Your task to perform on an android device: Search for pizza restaurants on Maps Image 0: 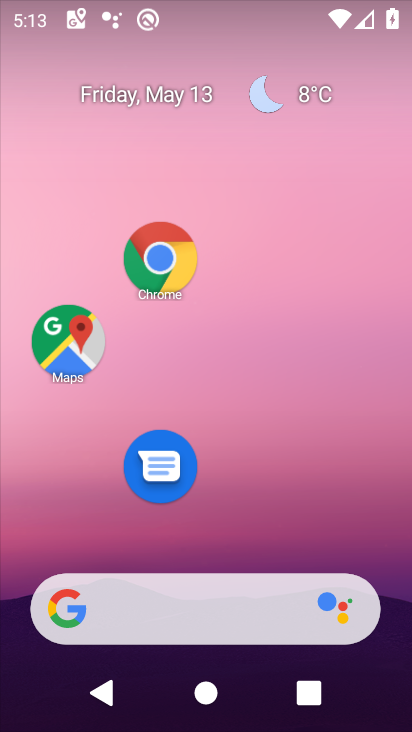
Step 0: drag from (329, 578) to (91, 75)
Your task to perform on an android device: Search for pizza restaurants on Maps Image 1: 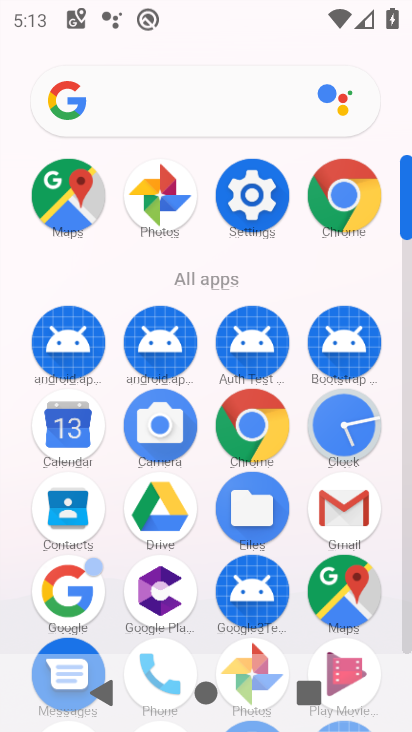
Step 1: click (72, 200)
Your task to perform on an android device: Search for pizza restaurants on Maps Image 2: 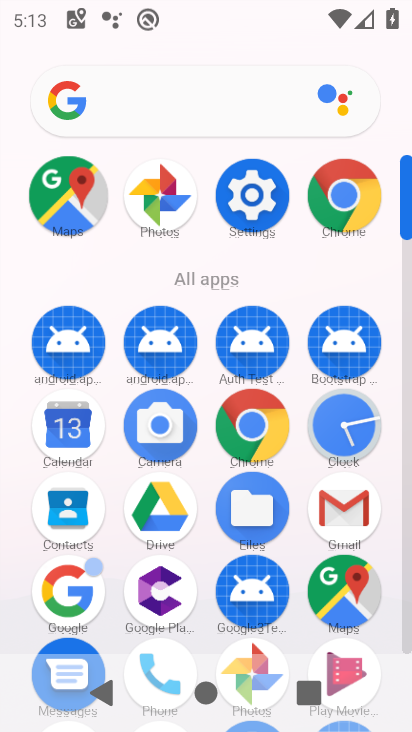
Step 2: click (72, 200)
Your task to perform on an android device: Search for pizza restaurants on Maps Image 3: 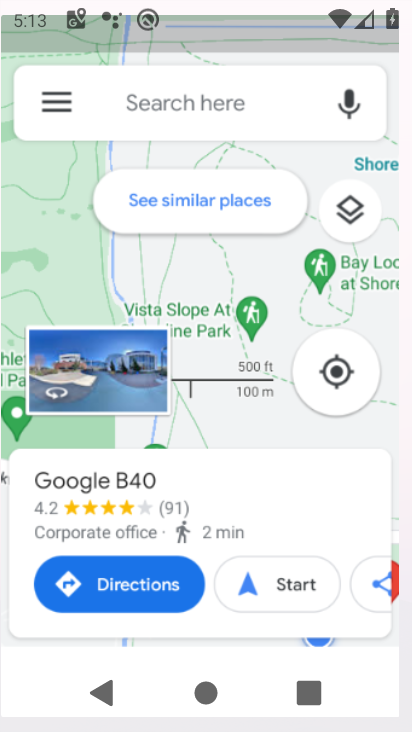
Step 3: click (72, 200)
Your task to perform on an android device: Search for pizza restaurants on Maps Image 4: 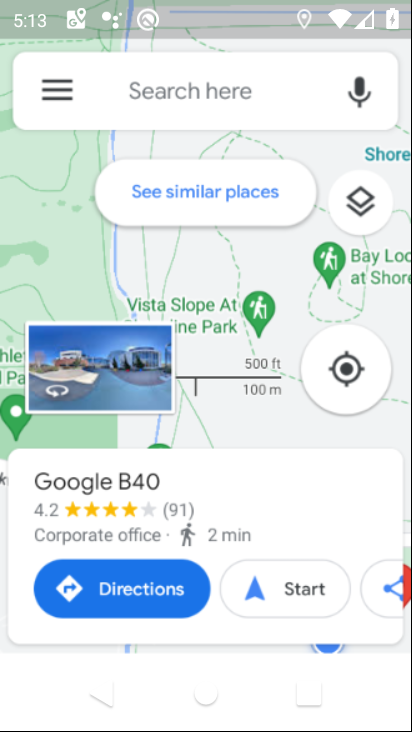
Step 4: click (72, 200)
Your task to perform on an android device: Search for pizza restaurants on Maps Image 5: 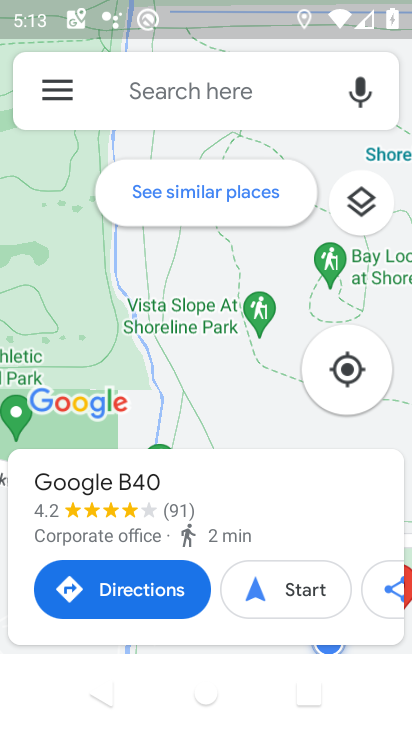
Step 5: click (72, 200)
Your task to perform on an android device: Search for pizza restaurants on Maps Image 6: 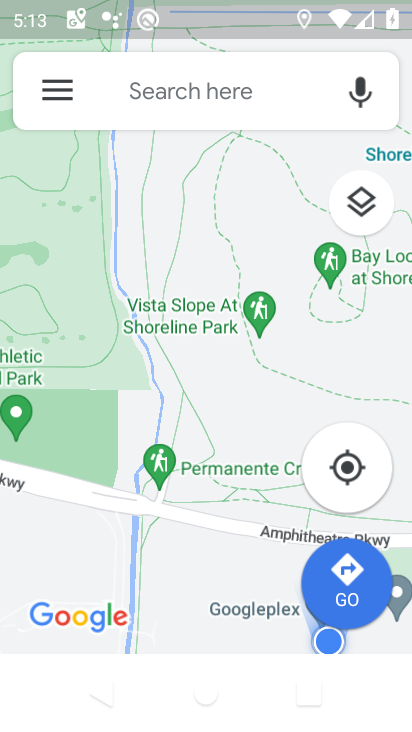
Step 6: click (126, 92)
Your task to perform on an android device: Search for pizza restaurants on Maps Image 7: 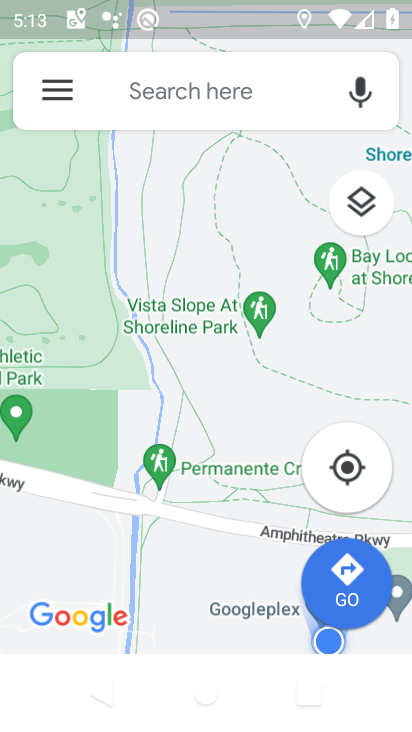
Step 7: click (126, 92)
Your task to perform on an android device: Search for pizza restaurants on Maps Image 8: 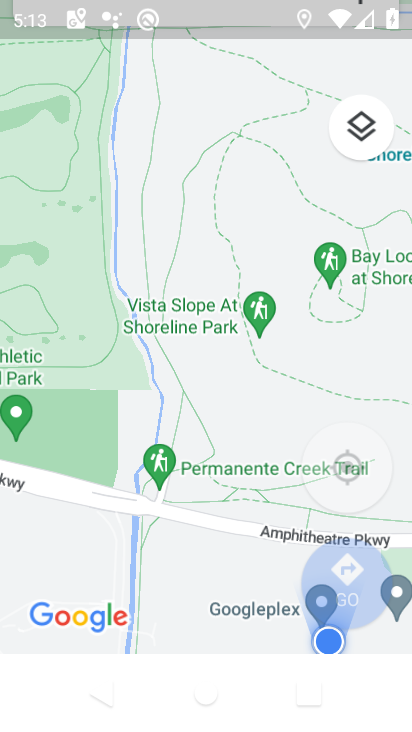
Step 8: click (126, 92)
Your task to perform on an android device: Search for pizza restaurants on Maps Image 9: 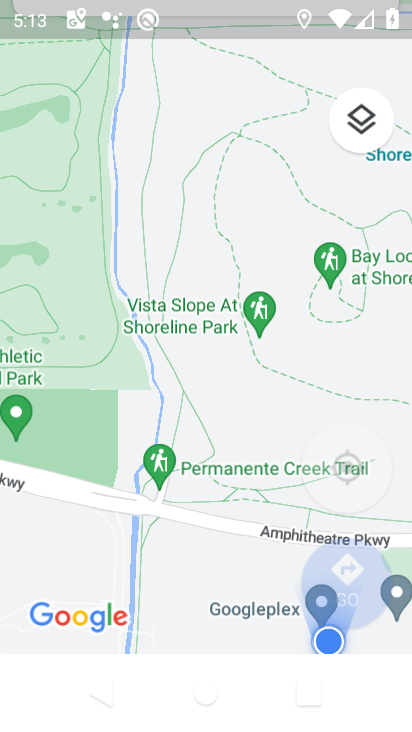
Step 9: click (126, 92)
Your task to perform on an android device: Search for pizza restaurants on Maps Image 10: 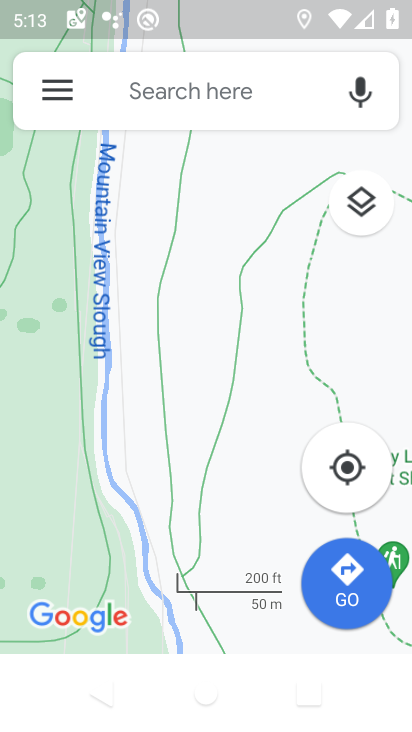
Step 10: click (128, 91)
Your task to perform on an android device: Search for pizza restaurants on Maps Image 11: 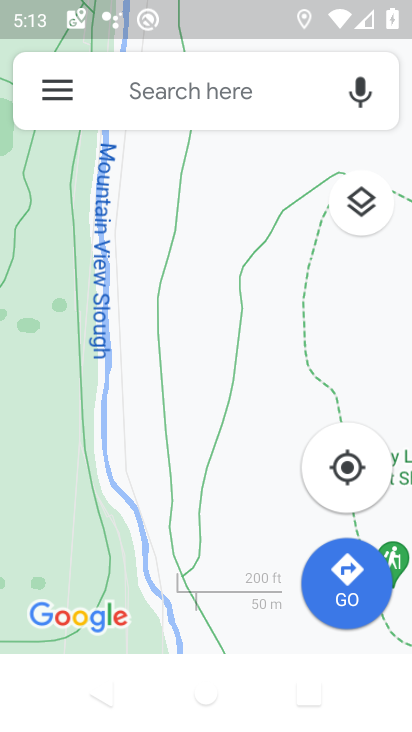
Step 11: click (128, 91)
Your task to perform on an android device: Search for pizza restaurants on Maps Image 12: 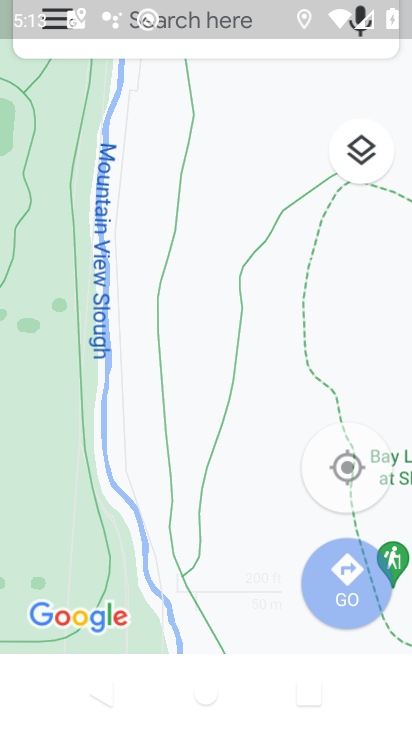
Step 12: click (128, 91)
Your task to perform on an android device: Search for pizza restaurants on Maps Image 13: 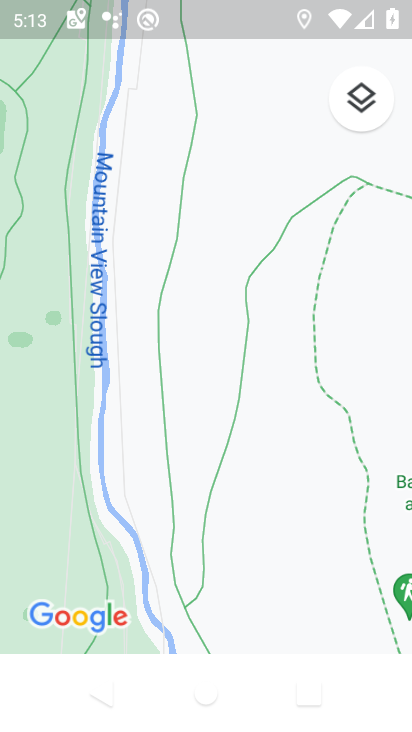
Step 13: click (128, 91)
Your task to perform on an android device: Search for pizza restaurants on Maps Image 14: 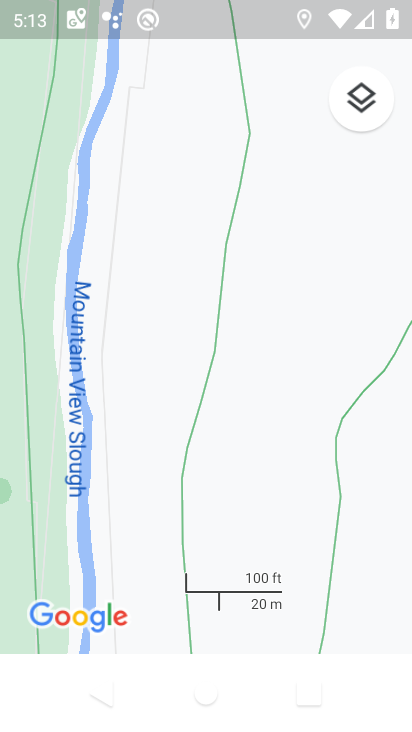
Step 14: click (128, 91)
Your task to perform on an android device: Search for pizza restaurants on Maps Image 15: 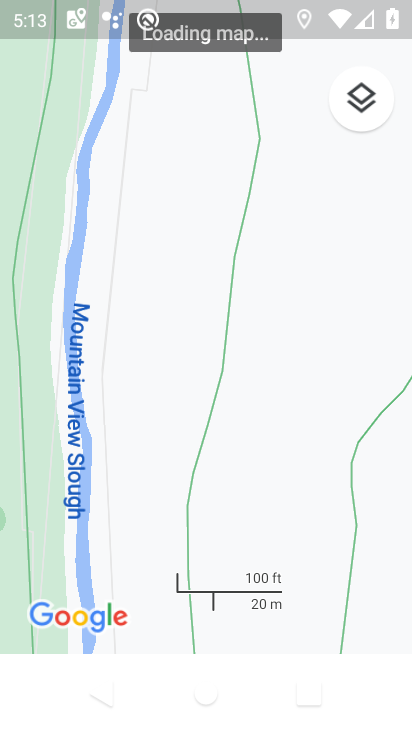
Step 15: click (128, 91)
Your task to perform on an android device: Search for pizza restaurants on Maps Image 16: 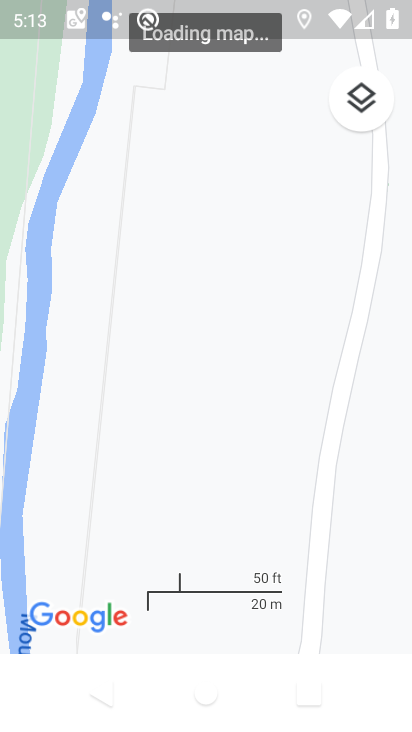
Step 16: click (128, 91)
Your task to perform on an android device: Search for pizza restaurants on Maps Image 17: 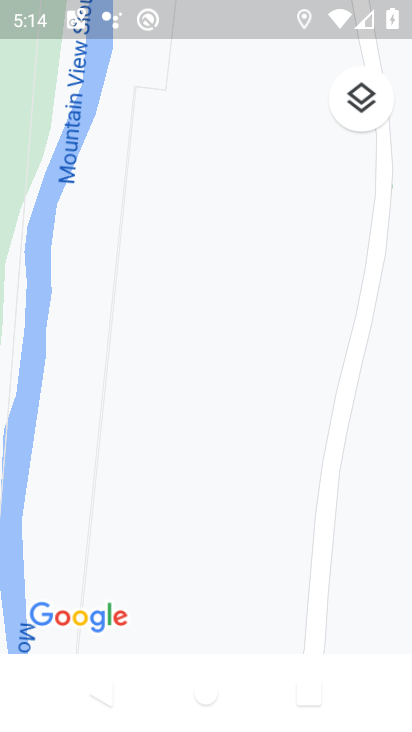
Step 17: click (93, 229)
Your task to perform on an android device: Search for pizza restaurants on Maps Image 18: 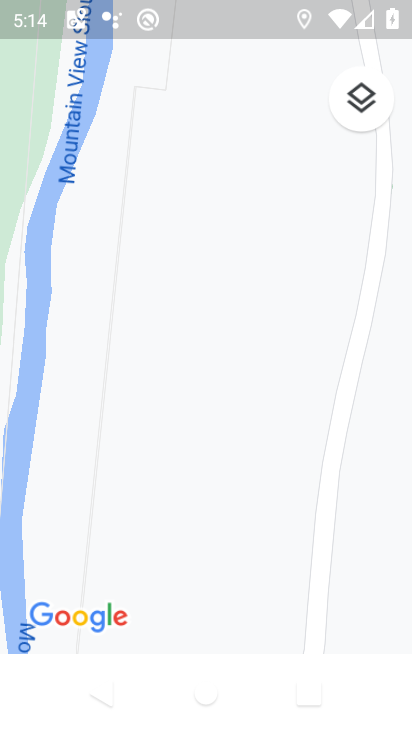
Step 18: click (93, 229)
Your task to perform on an android device: Search for pizza restaurants on Maps Image 19: 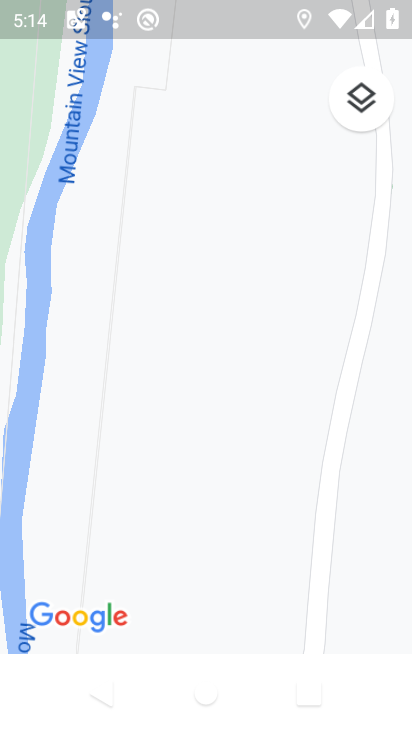
Step 19: click (94, 302)
Your task to perform on an android device: Search for pizza restaurants on Maps Image 20: 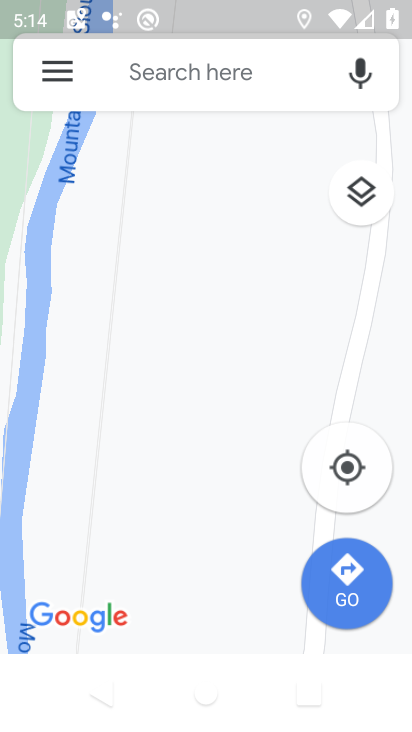
Step 20: task complete